Your task to perform on an android device: open a new tab in the chrome app Image 0: 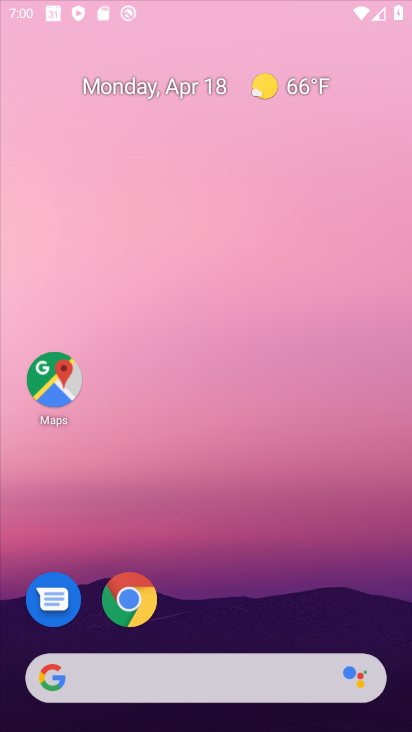
Step 0: drag from (209, 558) to (221, 0)
Your task to perform on an android device: open a new tab in the chrome app Image 1: 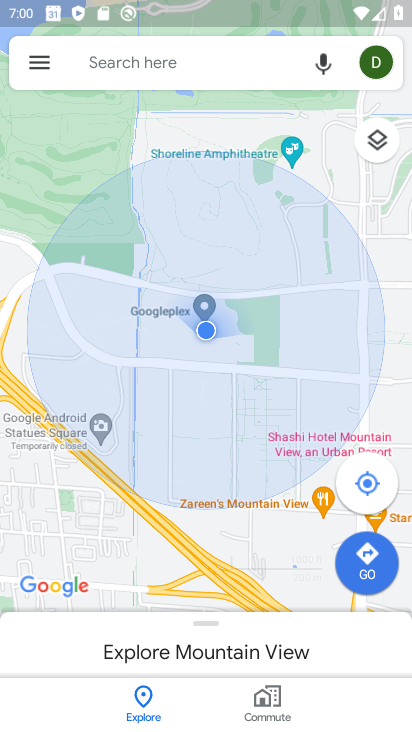
Step 1: press home button
Your task to perform on an android device: open a new tab in the chrome app Image 2: 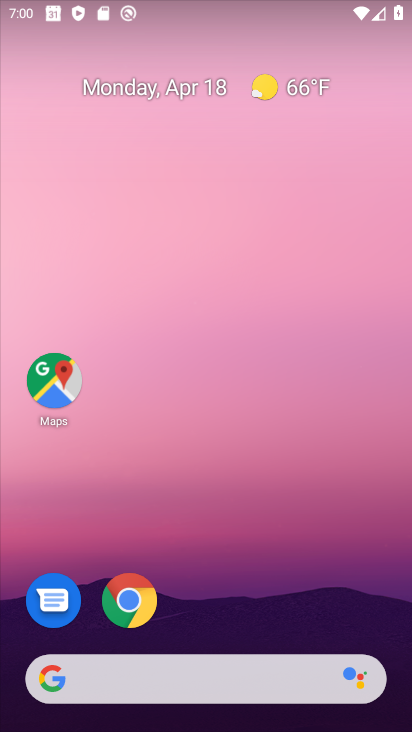
Step 2: click (128, 601)
Your task to perform on an android device: open a new tab in the chrome app Image 3: 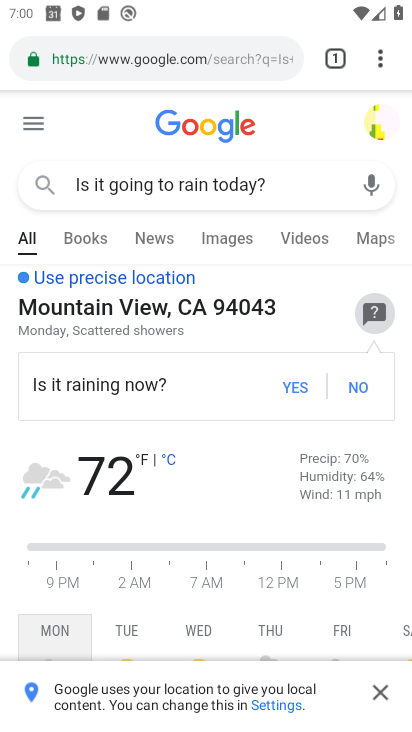
Step 3: click (378, 56)
Your task to perform on an android device: open a new tab in the chrome app Image 4: 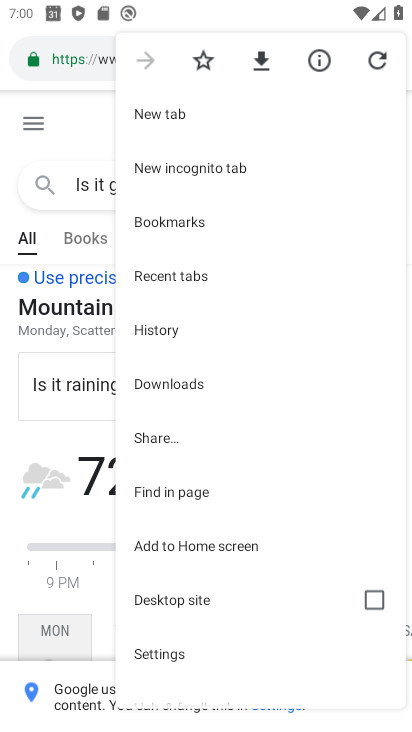
Step 4: click (161, 115)
Your task to perform on an android device: open a new tab in the chrome app Image 5: 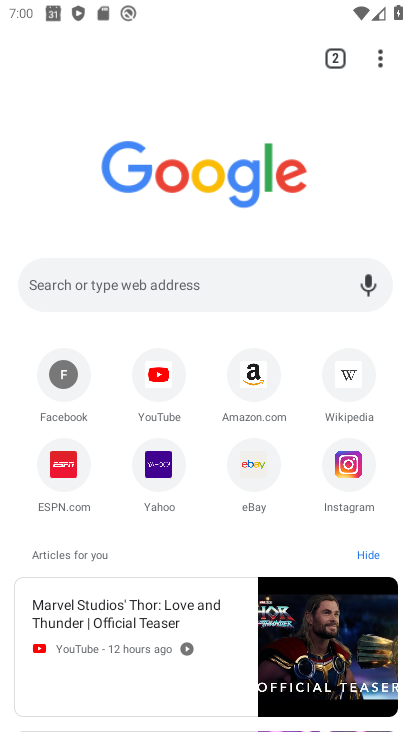
Step 5: task complete